Your task to perform on an android device: What's the weather today? Image 0: 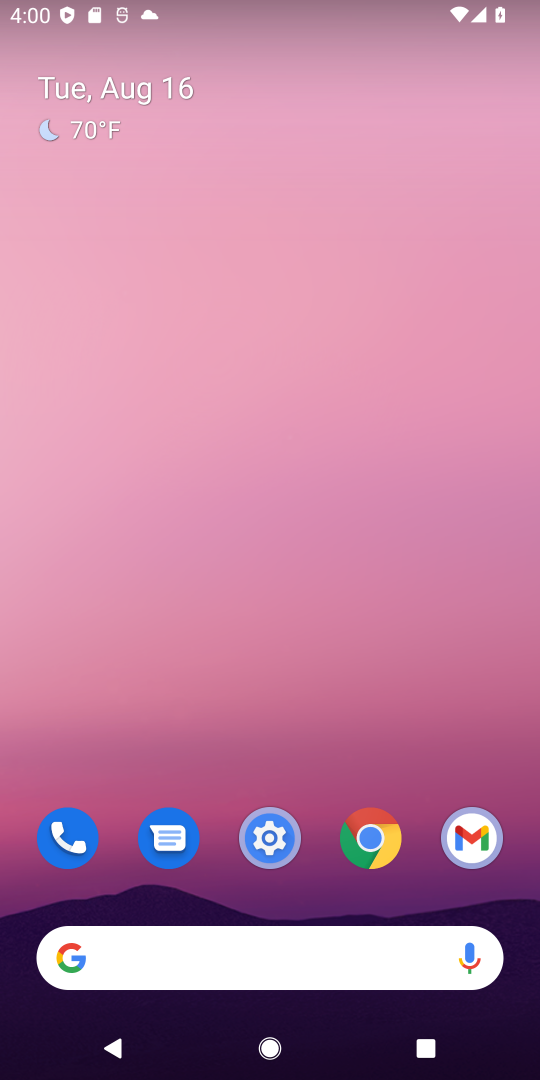
Step 0: click (496, 523)
Your task to perform on an android device: What's the weather today? Image 1: 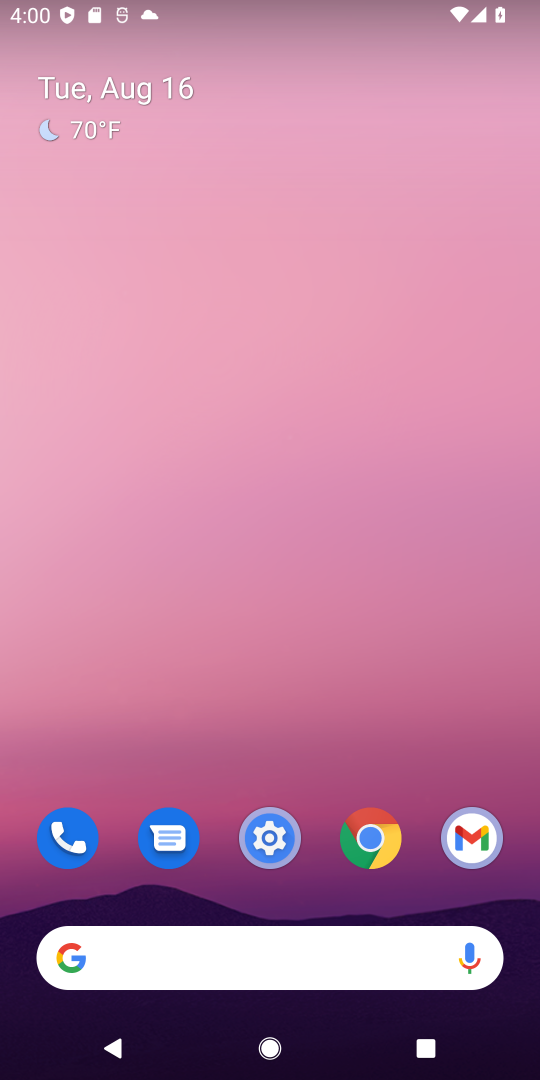
Step 1: click (79, 136)
Your task to perform on an android device: What's the weather today? Image 2: 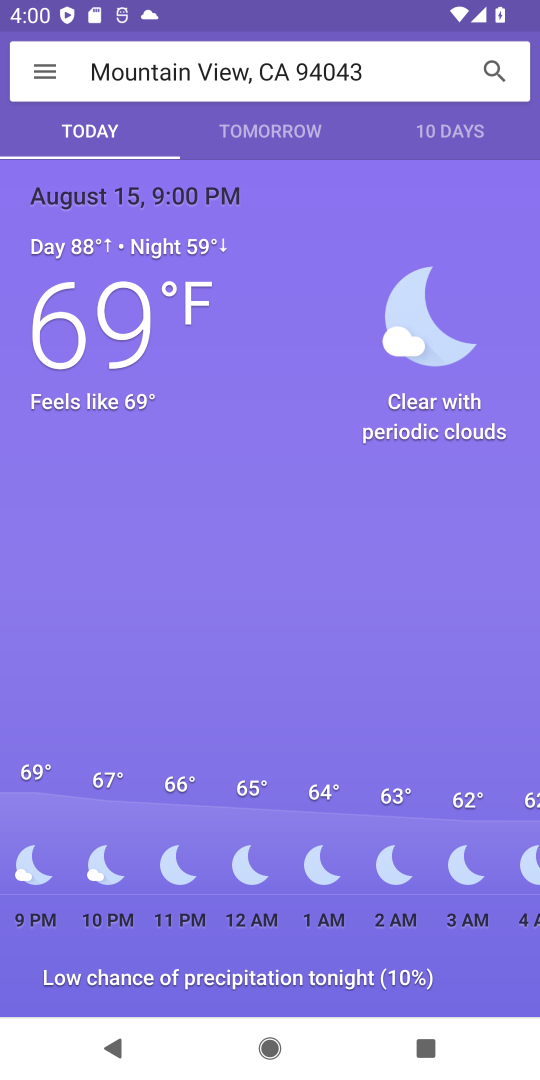
Step 2: task complete